Your task to perform on an android device: Search for pizza restaurants on Maps Image 0: 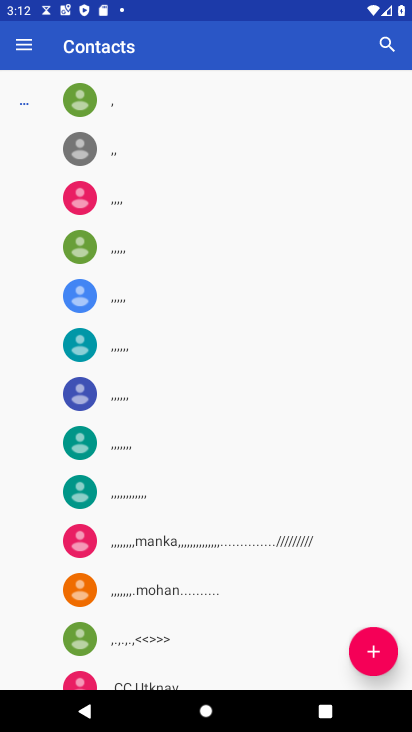
Step 0: press home button
Your task to perform on an android device: Search for pizza restaurants on Maps Image 1: 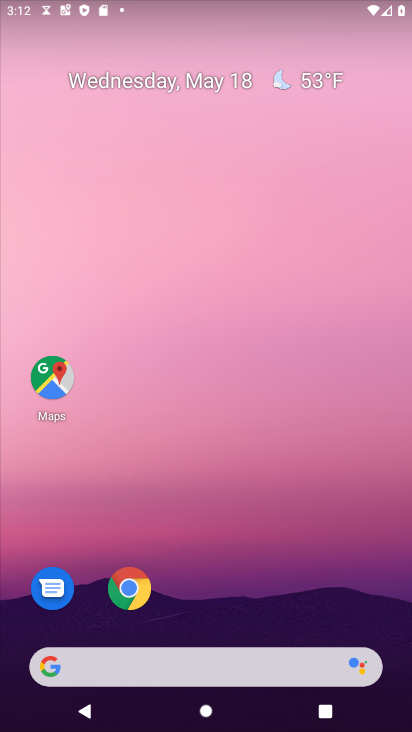
Step 1: click (66, 373)
Your task to perform on an android device: Search for pizza restaurants on Maps Image 2: 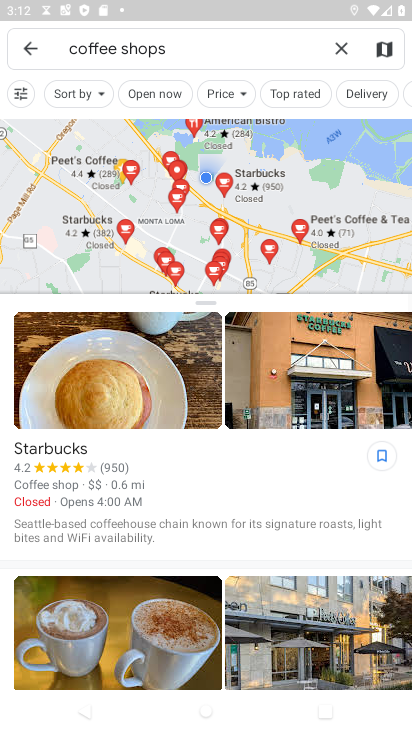
Step 2: click (339, 50)
Your task to perform on an android device: Search for pizza restaurants on Maps Image 3: 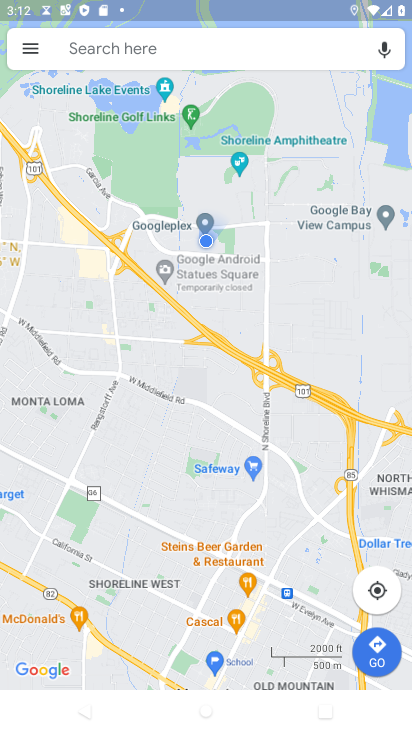
Step 3: click (280, 50)
Your task to perform on an android device: Search for pizza restaurants on Maps Image 4: 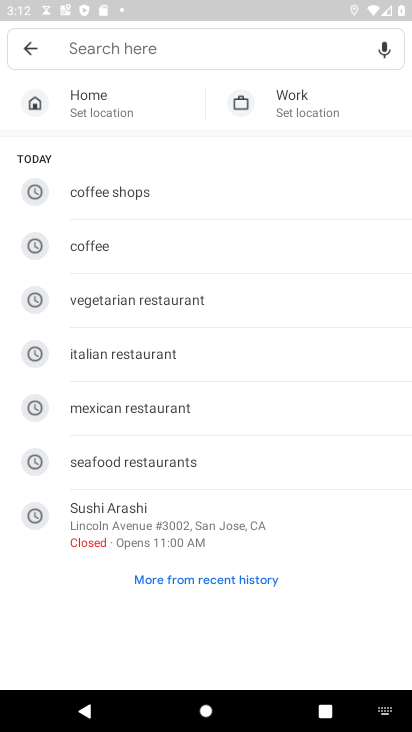
Step 4: type "pizza restaurants "
Your task to perform on an android device: Search for pizza restaurants on Maps Image 5: 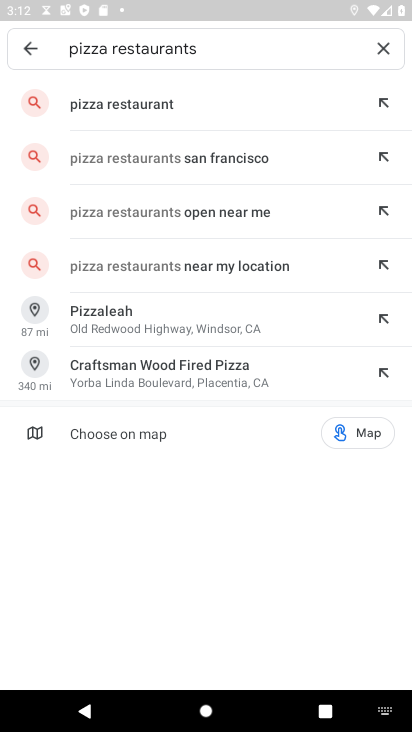
Step 5: click (254, 96)
Your task to perform on an android device: Search for pizza restaurants on Maps Image 6: 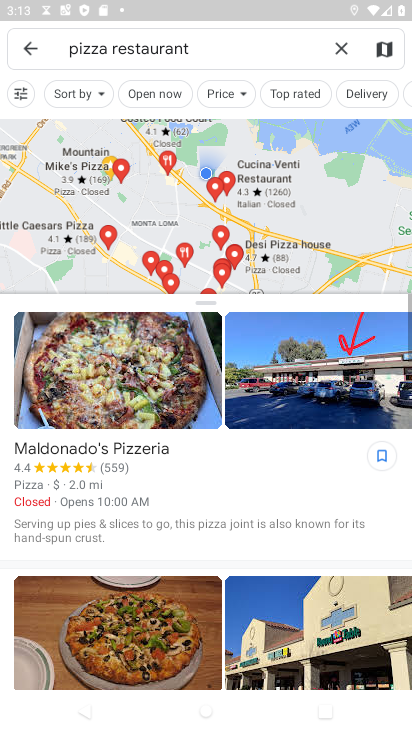
Step 6: task complete